Your task to perform on an android device: turn off picture-in-picture Image 0: 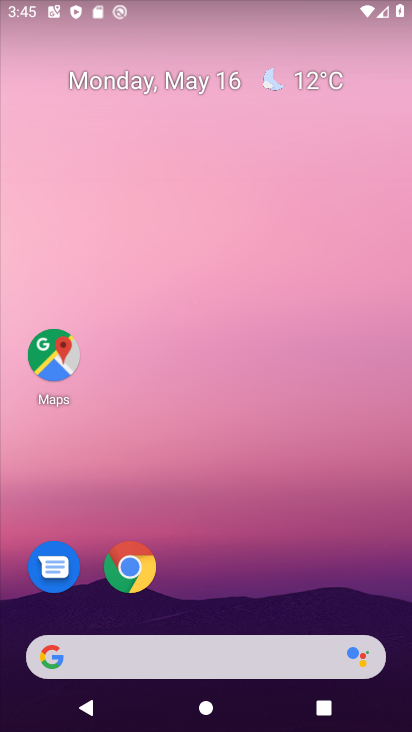
Step 0: drag from (264, 551) to (238, 7)
Your task to perform on an android device: turn off picture-in-picture Image 1: 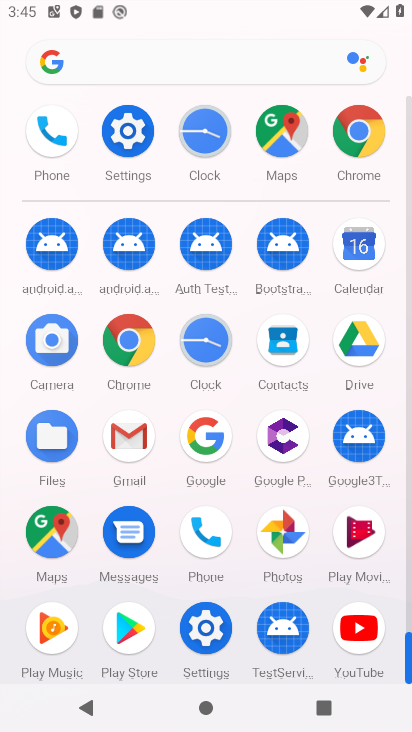
Step 1: click (129, 126)
Your task to perform on an android device: turn off picture-in-picture Image 2: 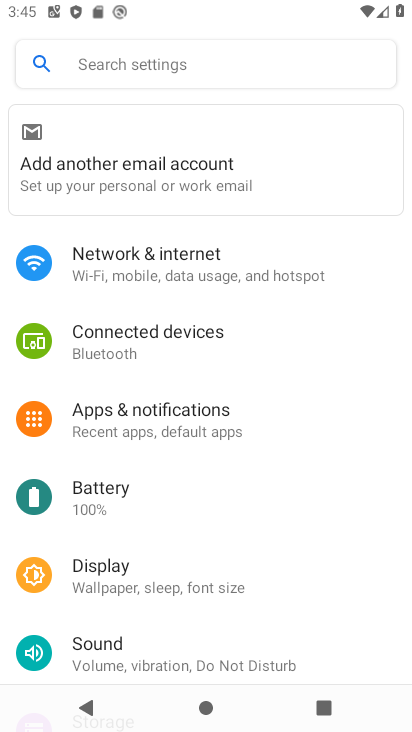
Step 2: drag from (301, 612) to (307, 198)
Your task to perform on an android device: turn off picture-in-picture Image 3: 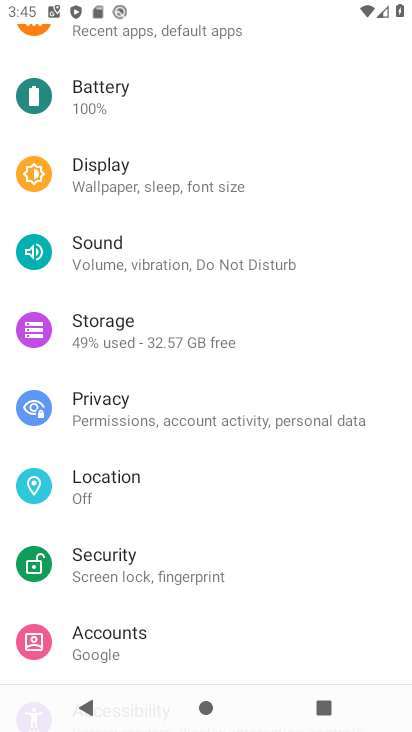
Step 3: drag from (266, 615) to (254, 128)
Your task to perform on an android device: turn off picture-in-picture Image 4: 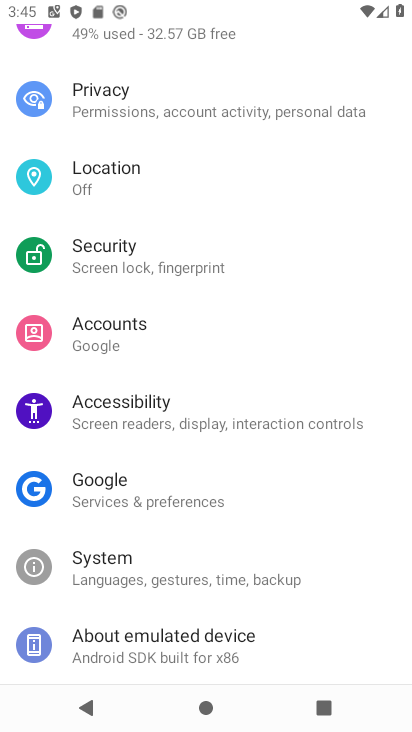
Step 4: drag from (272, 564) to (270, 219)
Your task to perform on an android device: turn off picture-in-picture Image 5: 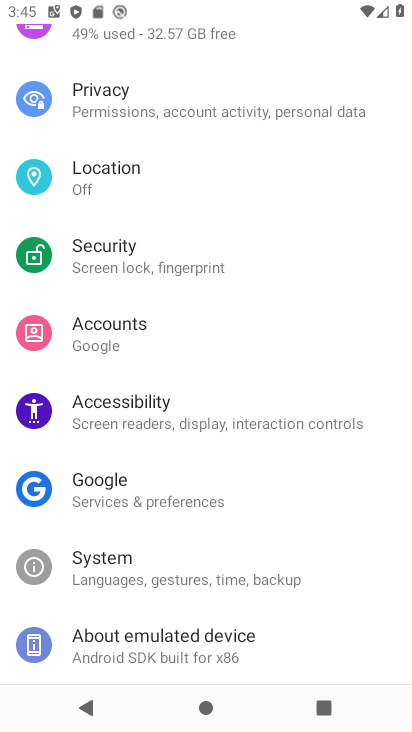
Step 5: drag from (294, 185) to (292, 619)
Your task to perform on an android device: turn off picture-in-picture Image 6: 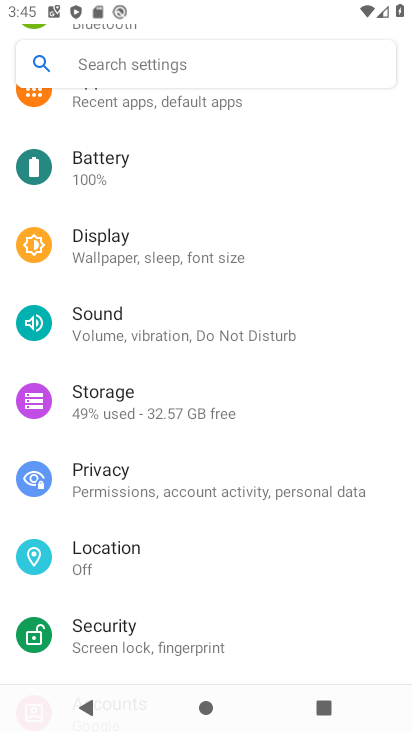
Step 6: drag from (295, 249) to (295, 587)
Your task to perform on an android device: turn off picture-in-picture Image 7: 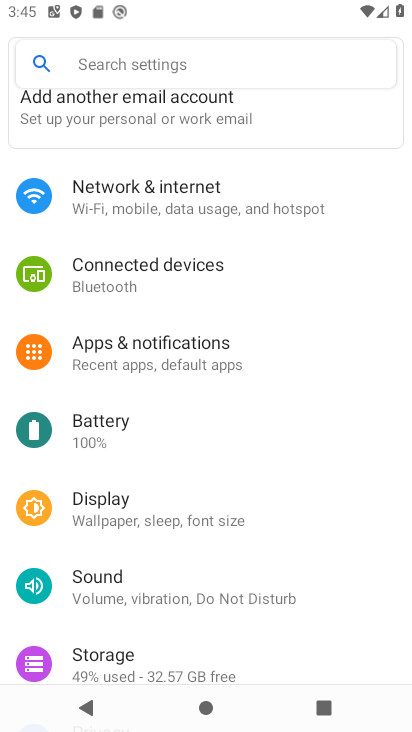
Step 7: drag from (338, 497) to (341, 130)
Your task to perform on an android device: turn off picture-in-picture Image 8: 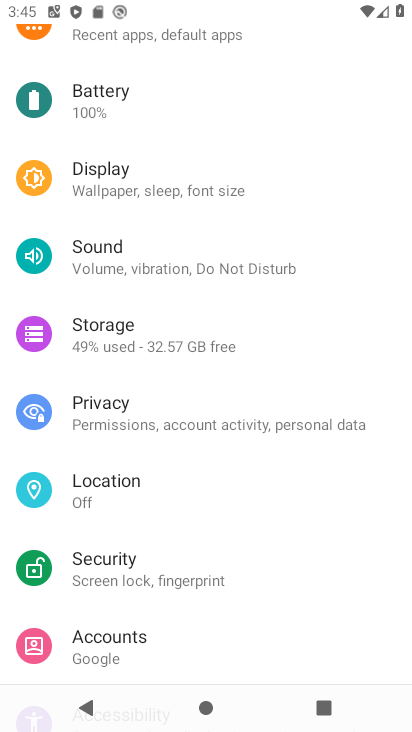
Step 8: drag from (297, 488) to (281, 116)
Your task to perform on an android device: turn off picture-in-picture Image 9: 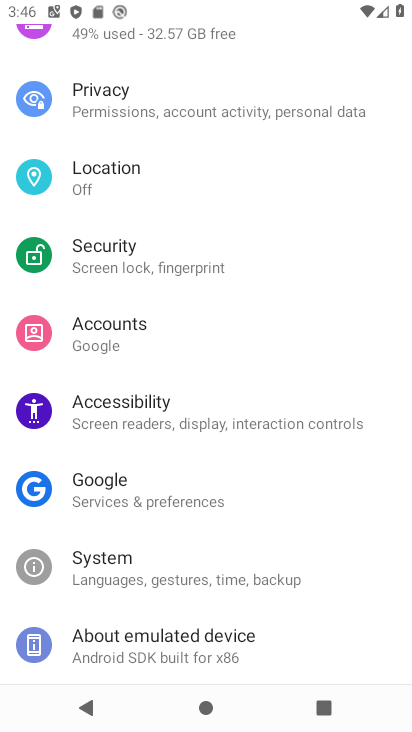
Step 9: drag from (270, 507) to (256, 255)
Your task to perform on an android device: turn off picture-in-picture Image 10: 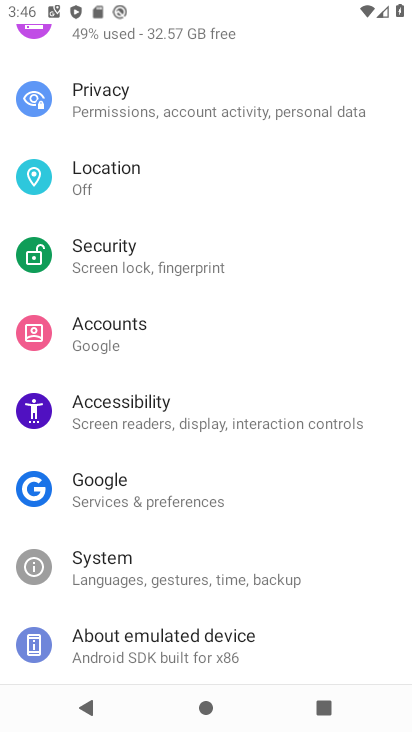
Step 10: drag from (244, 150) to (208, 424)
Your task to perform on an android device: turn off picture-in-picture Image 11: 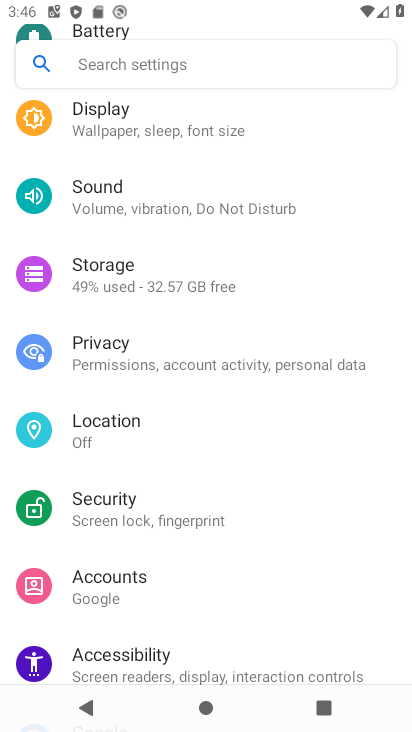
Step 11: drag from (224, 221) to (195, 586)
Your task to perform on an android device: turn off picture-in-picture Image 12: 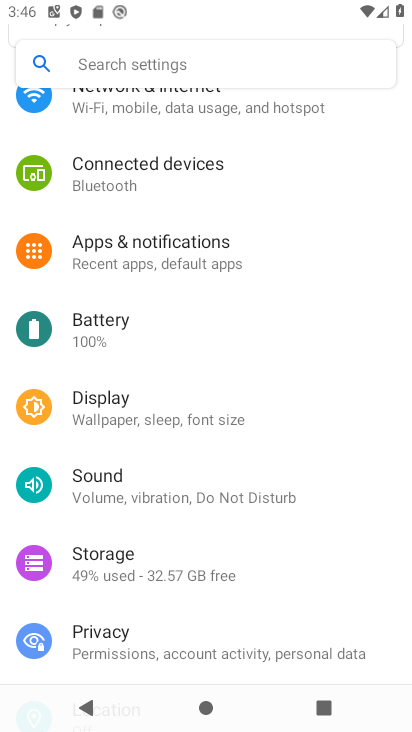
Step 12: click (153, 247)
Your task to perform on an android device: turn off picture-in-picture Image 13: 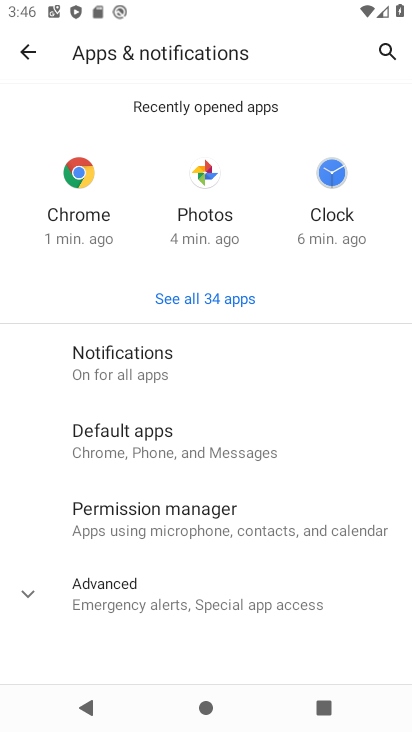
Step 13: click (211, 372)
Your task to perform on an android device: turn off picture-in-picture Image 14: 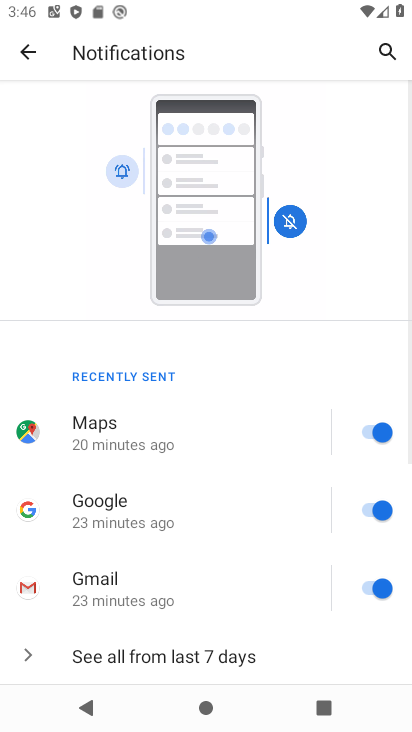
Step 14: drag from (188, 574) to (181, 136)
Your task to perform on an android device: turn off picture-in-picture Image 15: 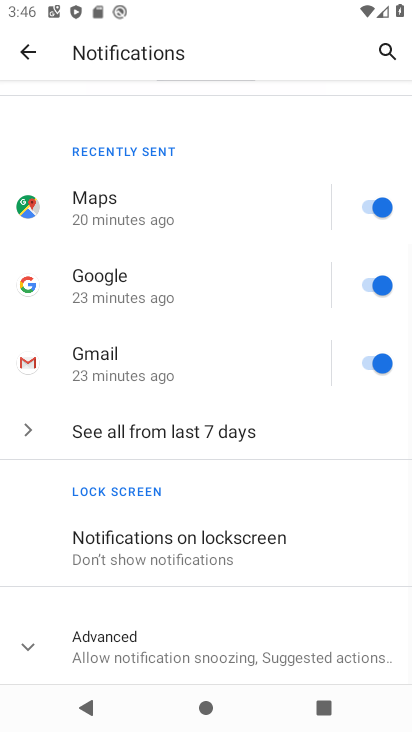
Step 15: click (30, 48)
Your task to perform on an android device: turn off picture-in-picture Image 16: 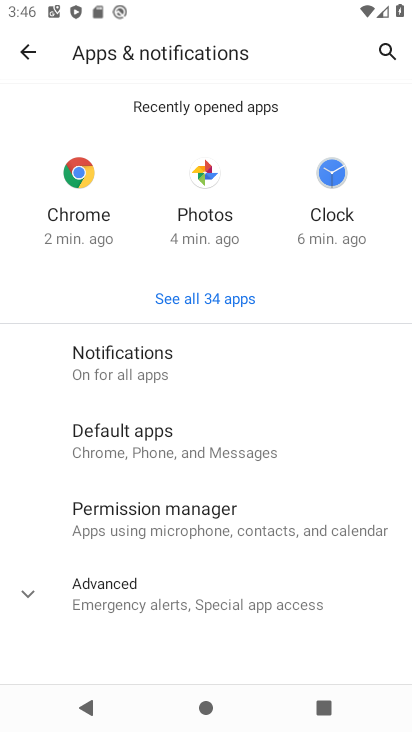
Step 16: click (43, 586)
Your task to perform on an android device: turn off picture-in-picture Image 17: 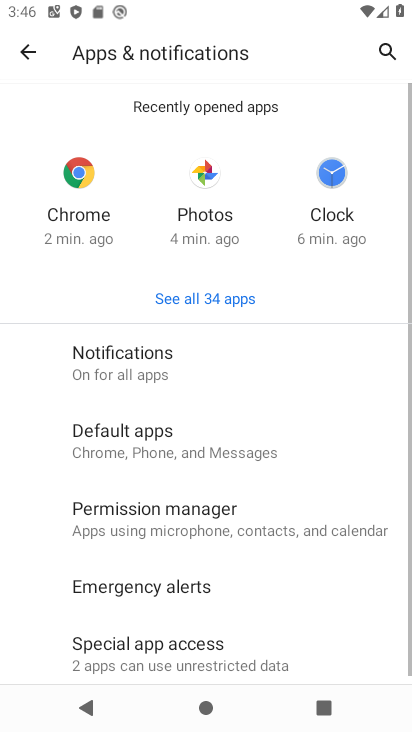
Step 17: drag from (255, 564) to (266, 203)
Your task to perform on an android device: turn off picture-in-picture Image 18: 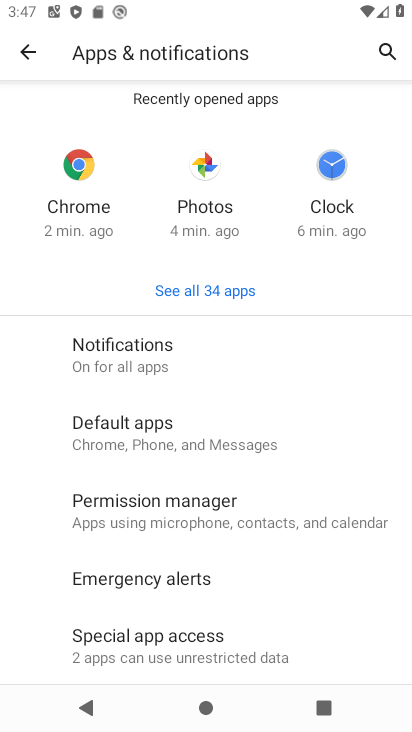
Step 18: click (156, 658)
Your task to perform on an android device: turn off picture-in-picture Image 19: 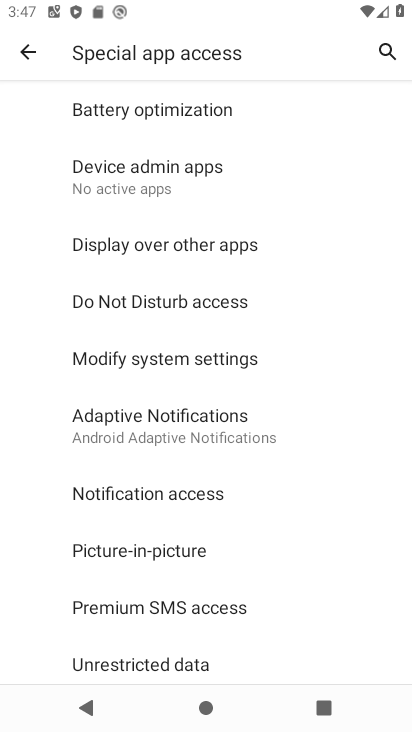
Step 19: click (156, 558)
Your task to perform on an android device: turn off picture-in-picture Image 20: 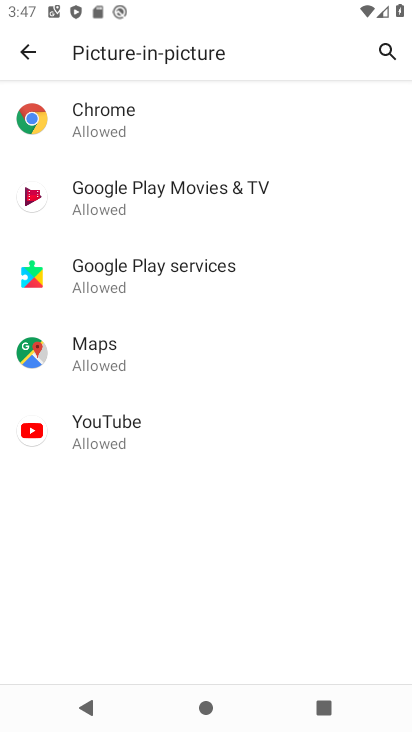
Step 20: click (128, 119)
Your task to perform on an android device: turn off picture-in-picture Image 21: 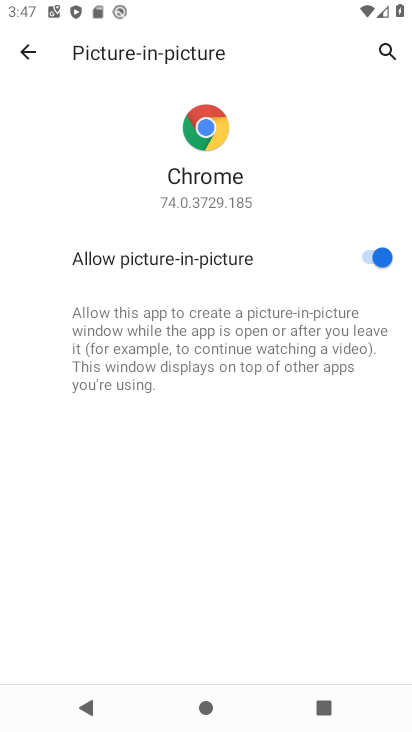
Step 21: click (373, 255)
Your task to perform on an android device: turn off picture-in-picture Image 22: 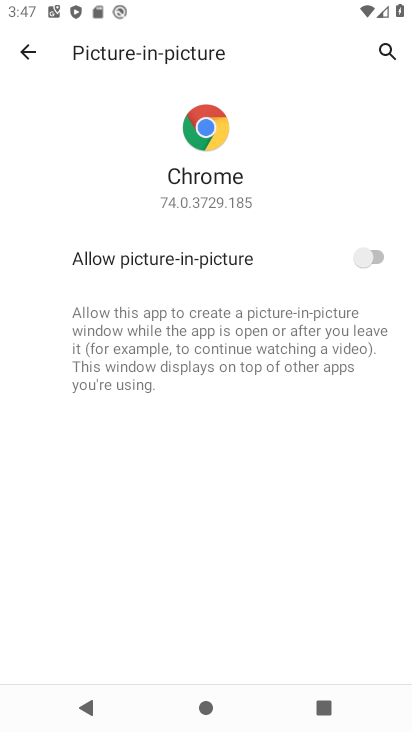
Step 22: click (27, 48)
Your task to perform on an android device: turn off picture-in-picture Image 23: 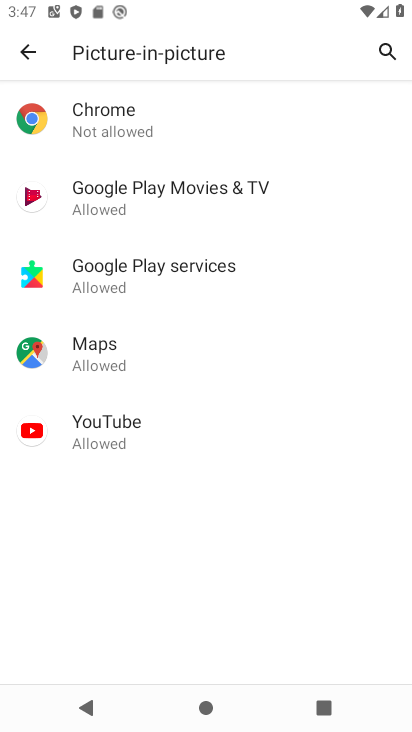
Step 23: click (126, 203)
Your task to perform on an android device: turn off picture-in-picture Image 24: 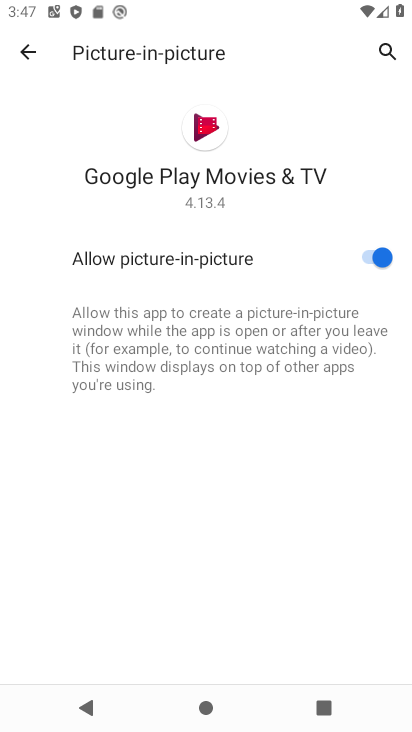
Step 24: click (372, 261)
Your task to perform on an android device: turn off picture-in-picture Image 25: 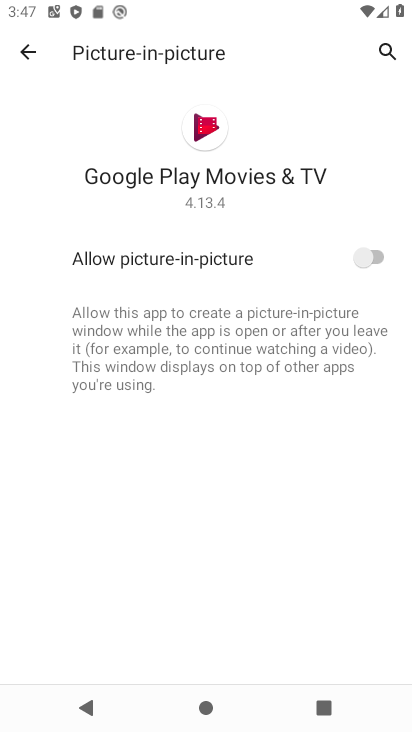
Step 25: click (19, 46)
Your task to perform on an android device: turn off picture-in-picture Image 26: 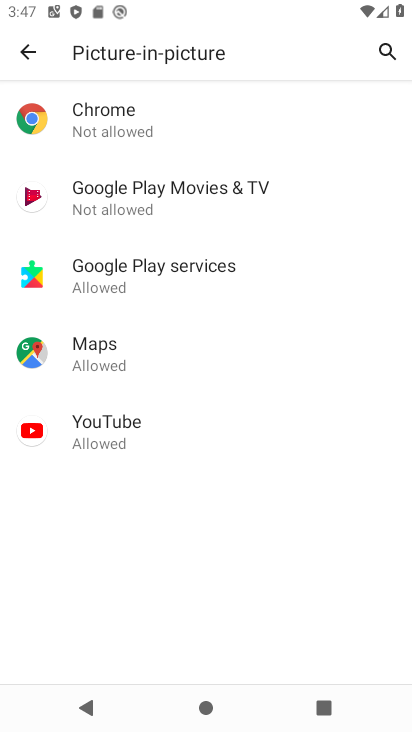
Step 26: click (183, 279)
Your task to perform on an android device: turn off picture-in-picture Image 27: 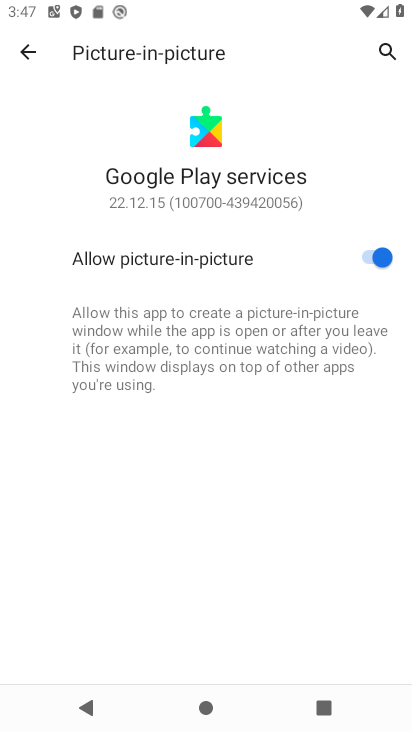
Step 27: click (375, 268)
Your task to perform on an android device: turn off picture-in-picture Image 28: 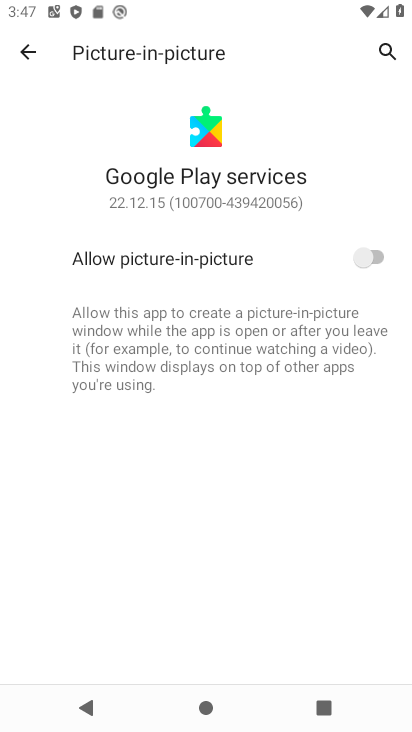
Step 28: click (36, 61)
Your task to perform on an android device: turn off picture-in-picture Image 29: 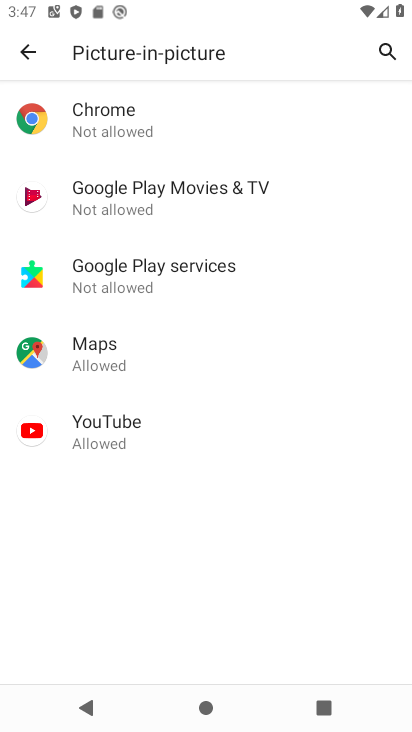
Step 29: click (106, 342)
Your task to perform on an android device: turn off picture-in-picture Image 30: 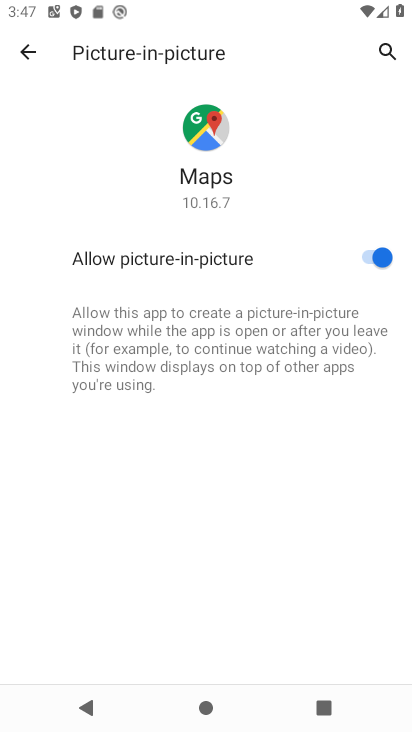
Step 30: click (379, 269)
Your task to perform on an android device: turn off picture-in-picture Image 31: 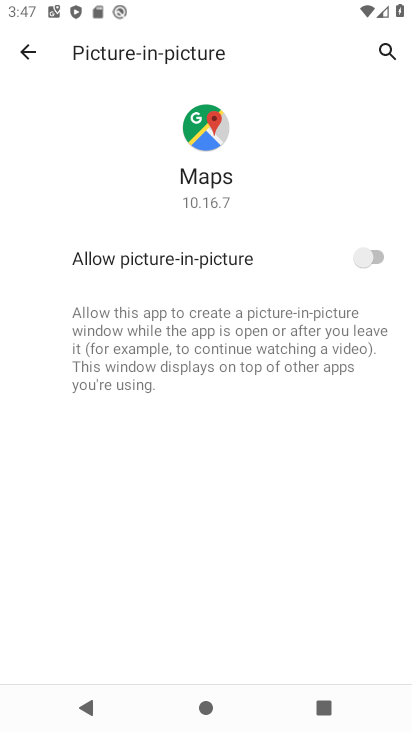
Step 31: click (30, 50)
Your task to perform on an android device: turn off picture-in-picture Image 32: 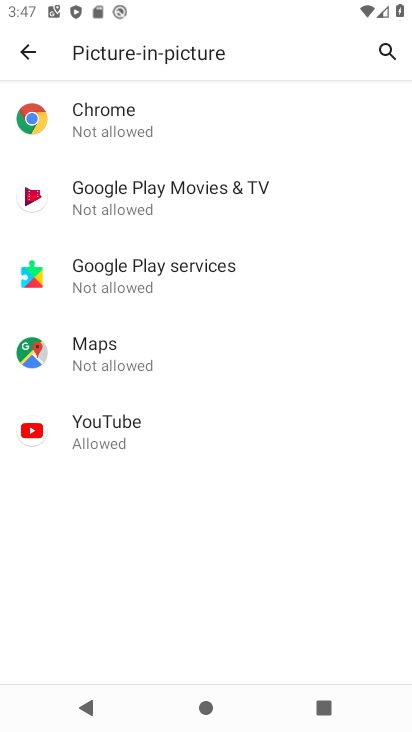
Step 32: click (113, 442)
Your task to perform on an android device: turn off picture-in-picture Image 33: 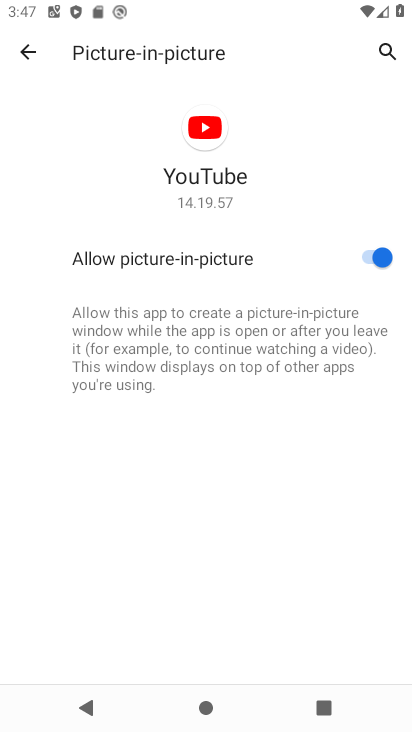
Step 33: click (362, 251)
Your task to perform on an android device: turn off picture-in-picture Image 34: 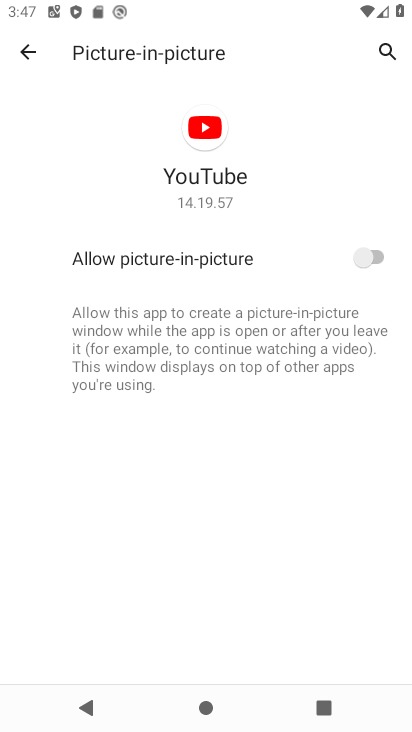
Step 34: click (19, 49)
Your task to perform on an android device: turn off picture-in-picture Image 35: 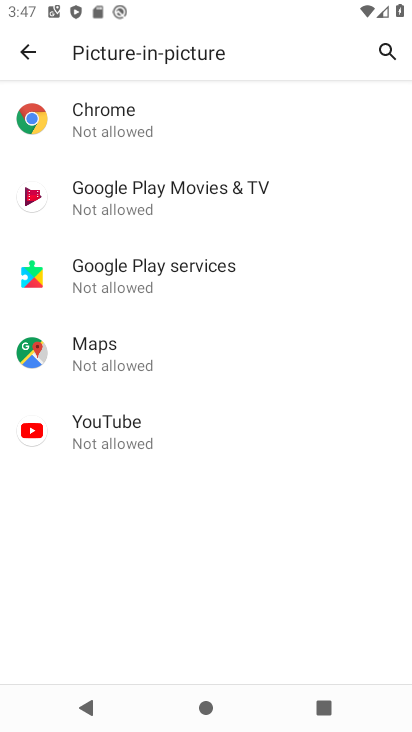
Step 35: task complete